Your task to perform on an android device: Open sound settings Image 0: 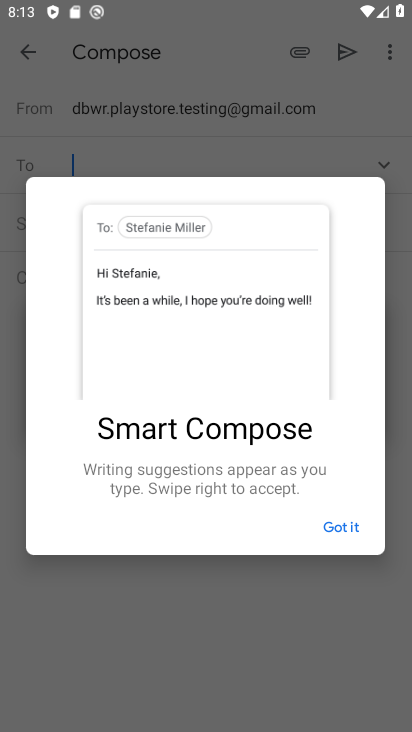
Step 0: press home button
Your task to perform on an android device: Open sound settings Image 1: 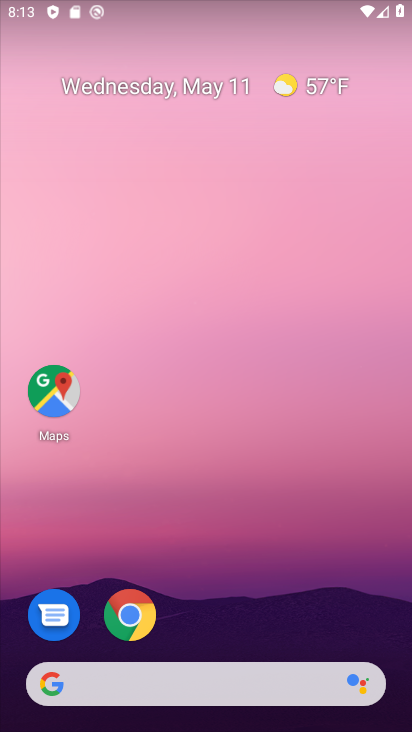
Step 1: drag from (166, 629) to (246, 160)
Your task to perform on an android device: Open sound settings Image 2: 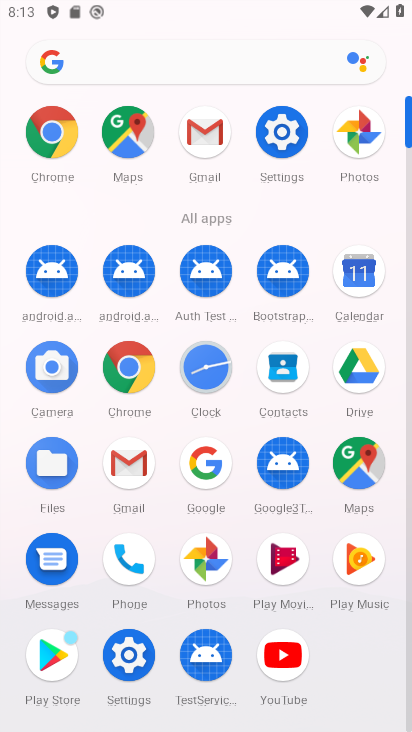
Step 2: click (283, 145)
Your task to perform on an android device: Open sound settings Image 3: 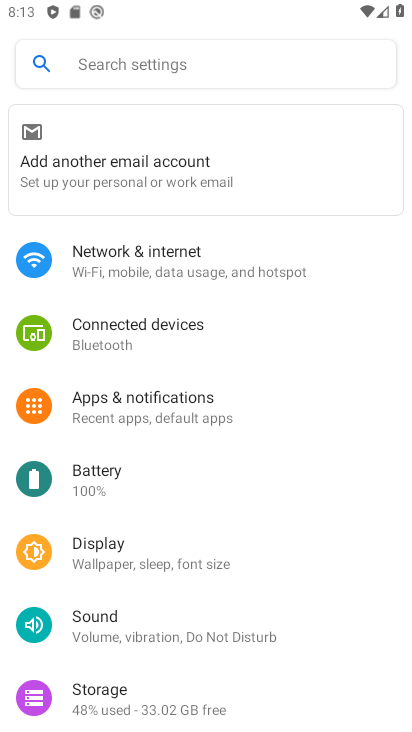
Step 3: click (146, 626)
Your task to perform on an android device: Open sound settings Image 4: 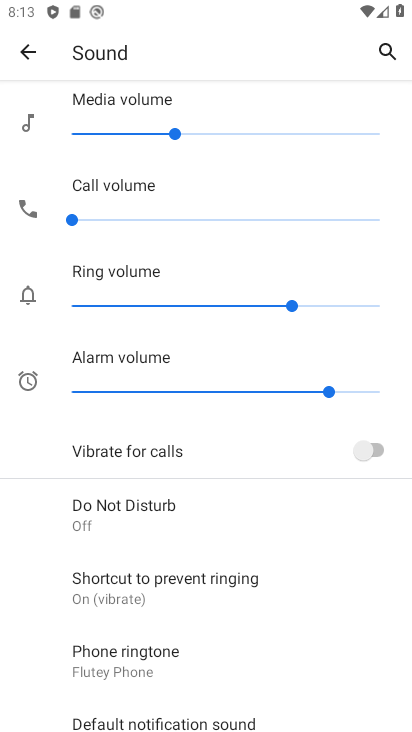
Step 4: task complete